Your task to perform on an android device: Is it going to rain tomorrow? Image 0: 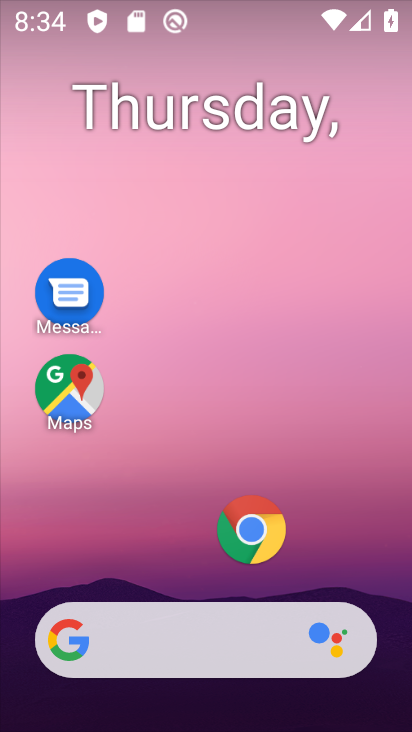
Step 0: click (203, 625)
Your task to perform on an android device: Is it going to rain tomorrow? Image 1: 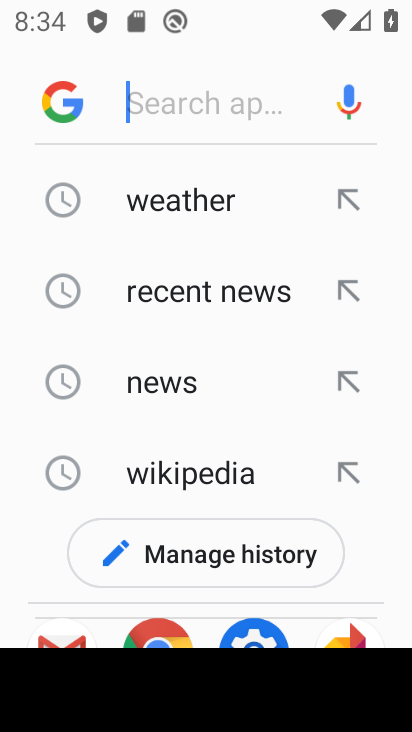
Step 1: click (219, 190)
Your task to perform on an android device: Is it going to rain tomorrow? Image 2: 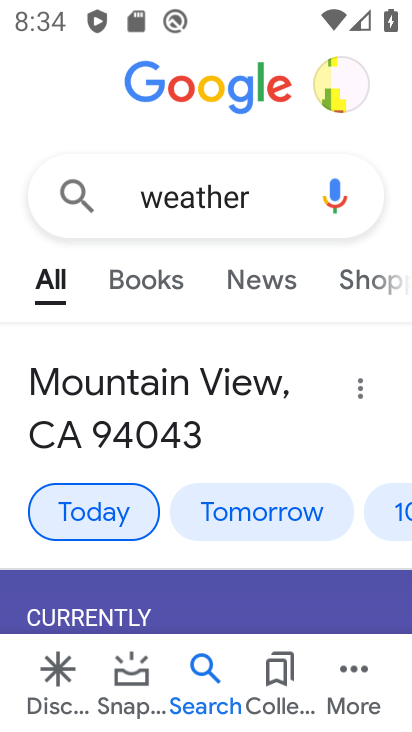
Step 2: click (152, 602)
Your task to perform on an android device: Is it going to rain tomorrow? Image 3: 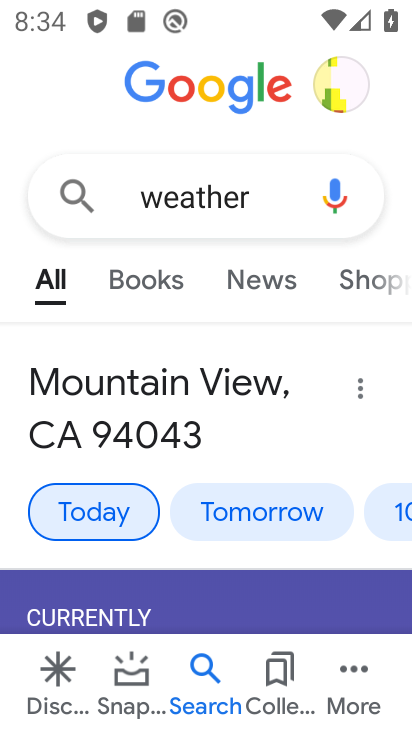
Step 3: drag from (152, 602) to (230, 261)
Your task to perform on an android device: Is it going to rain tomorrow? Image 4: 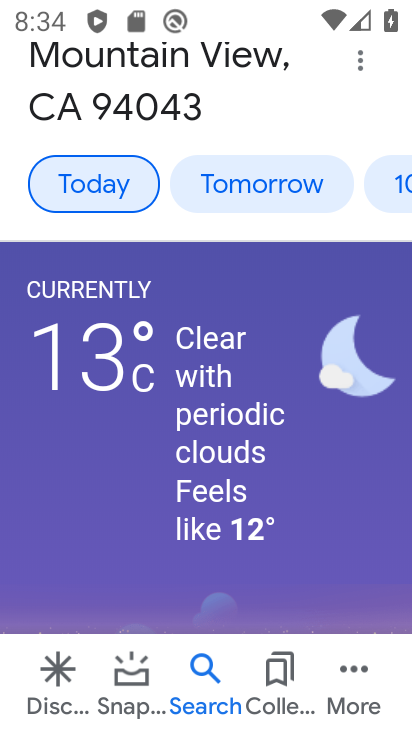
Step 4: drag from (279, 565) to (290, 434)
Your task to perform on an android device: Is it going to rain tomorrow? Image 5: 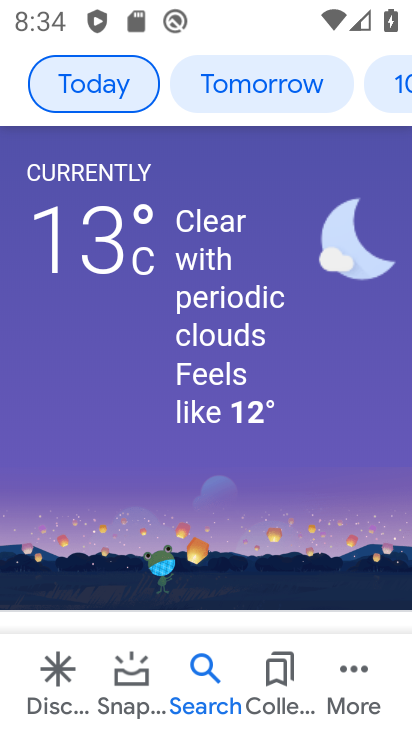
Step 5: drag from (230, 492) to (236, 332)
Your task to perform on an android device: Is it going to rain tomorrow? Image 6: 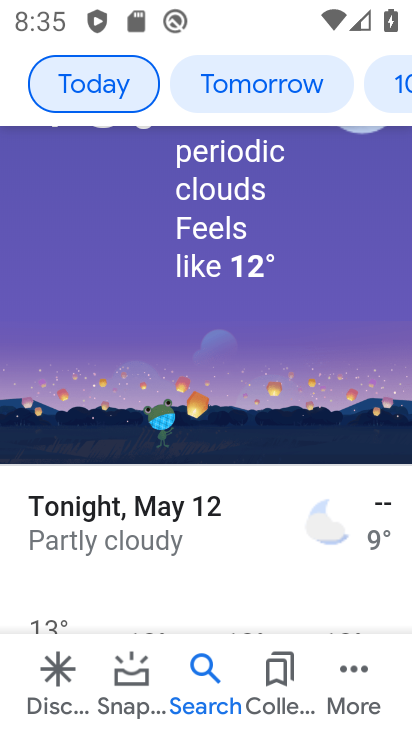
Step 6: drag from (110, 549) to (162, 294)
Your task to perform on an android device: Is it going to rain tomorrow? Image 7: 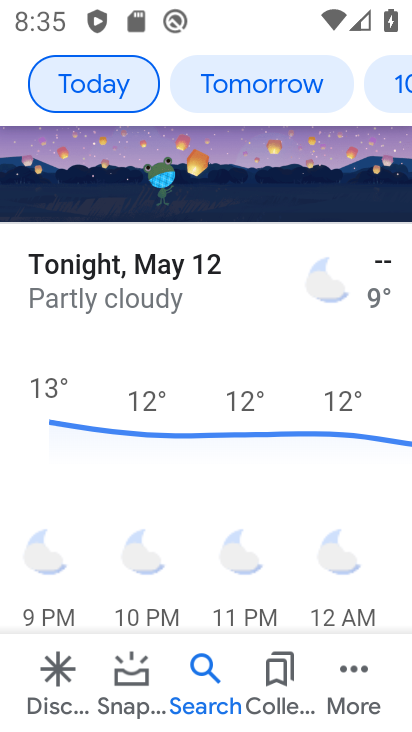
Step 7: drag from (176, 548) to (210, 281)
Your task to perform on an android device: Is it going to rain tomorrow? Image 8: 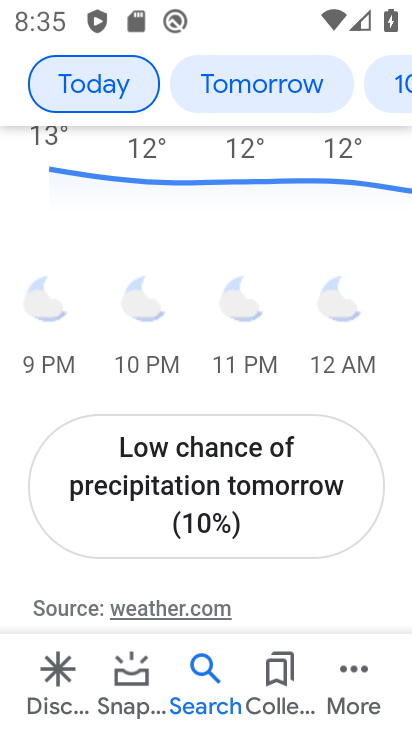
Step 8: drag from (171, 419) to (206, 250)
Your task to perform on an android device: Is it going to rain tomorrow? Image 9: 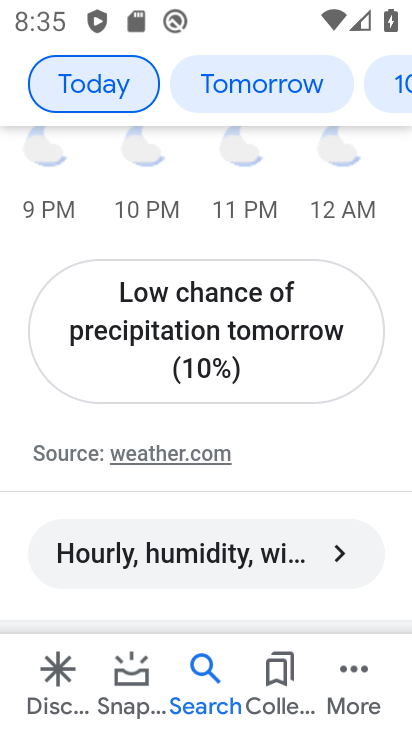
Step 9: click (173, 463)
Your task to perform on an android device: Is it going to rain tomorrow? Image 10: 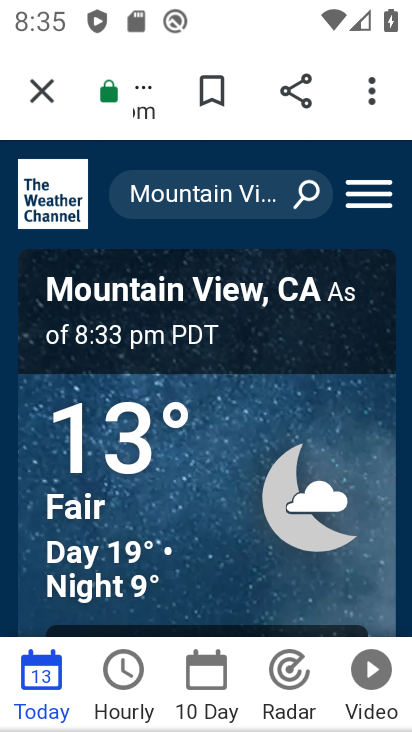
Step 10: drag from (139, 588) to (225, 112)
Your task to perform on an android device: Is it going to rain tomorrow? Image 11: 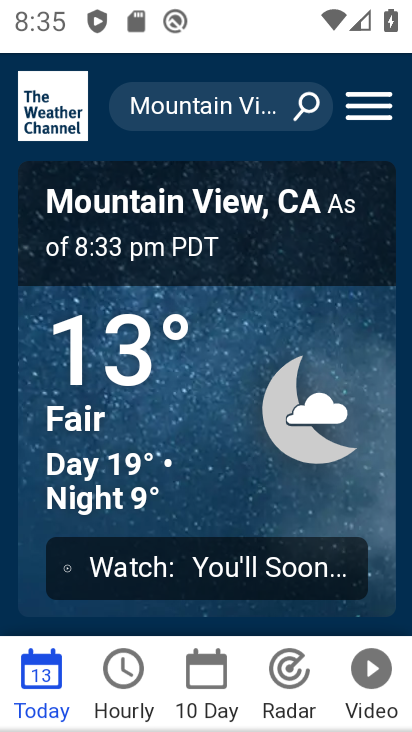
Step 11: drag from (312, 404) to (335, 26)
Your task to perform on an android device: Is it going to rain tomorrow? Image 12: 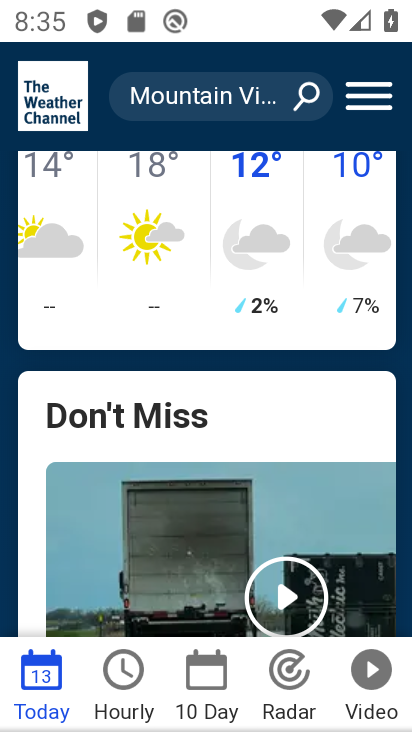
Step 12: drag from (251, 268) to (289, 507)
Your task to perform on an android device: Is it going to rain tomorrow? Image 13: 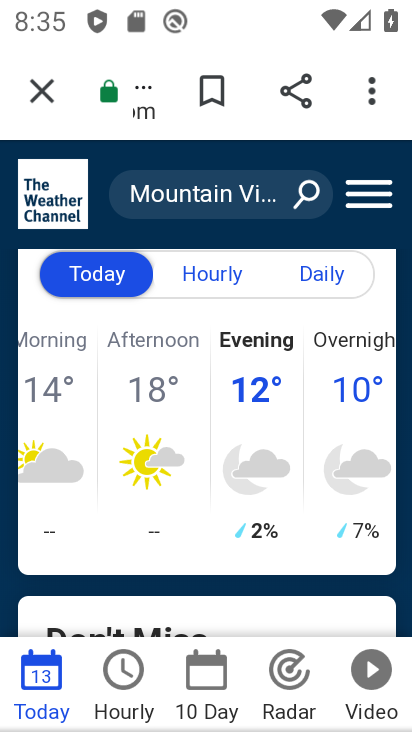
Step 13: click (326, 286)
Your task to perform on an android device: Is it going to rain tomorrow? Image 14: 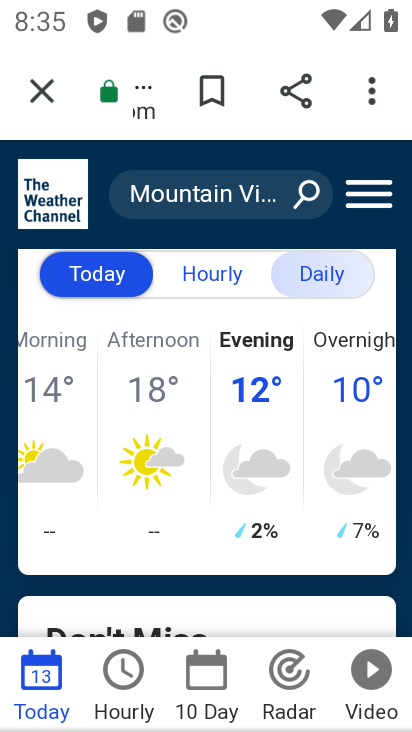
Step 14: click (326, 286)
Your task to perform on an android device: Is it going to rain tomorrow? Image 15: 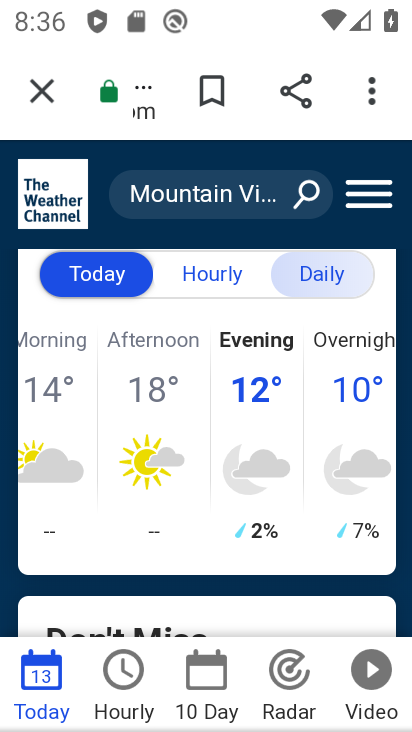
Step 15: click (204, 684)
Your task to perform on an android device: Is it going to rain tomorrow? Image 16: 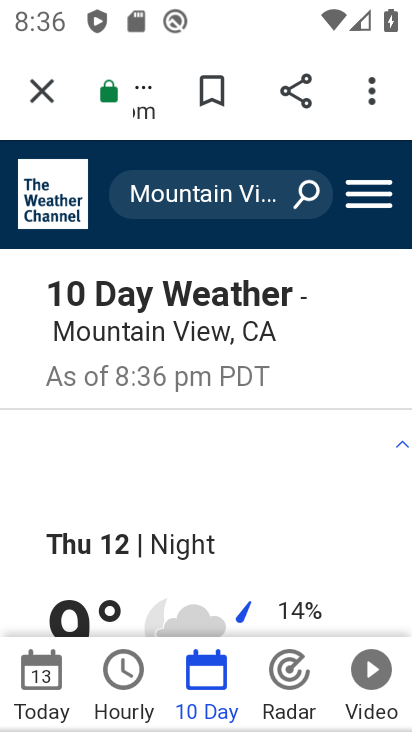
Step 16: drag from (223, 460) to (252, 74)
Your task to perform on an android device: Is it going to rain tomorrow? Image 17: 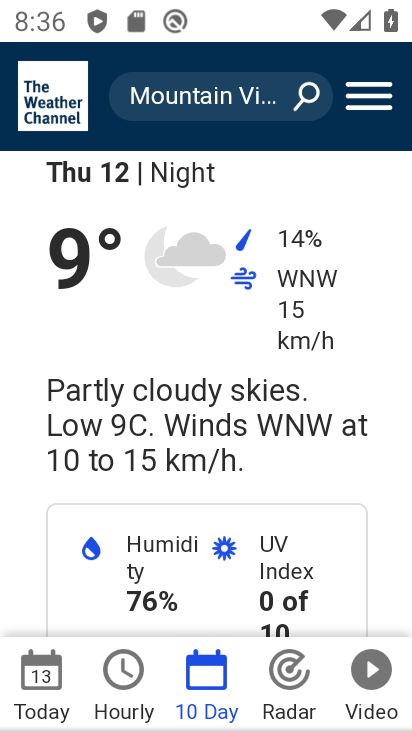
Step 17: drag from (168, 531) to (203, 245)
Your task to perform on an android device: Is it going to rain tomorrow? Image 18: 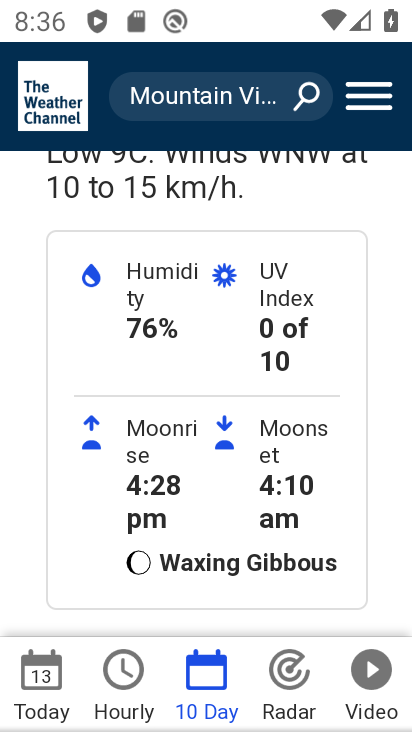
Step 18: drag from (28, 599) to (168, 158)
Your task to perform on an android device: Is it going to rain tomorrow? Image 19: 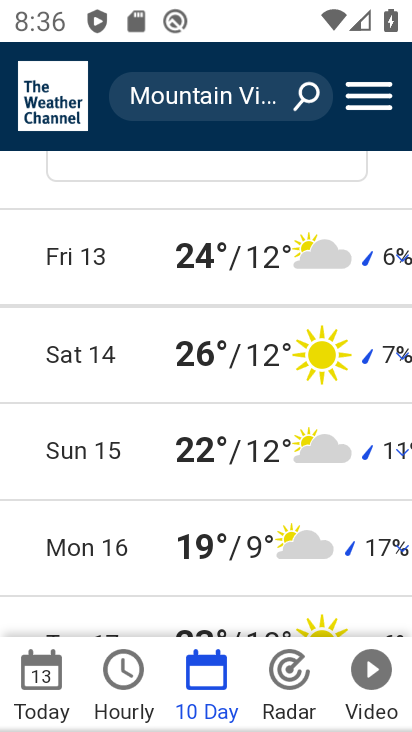
Step 19: click (126, 265)
Your task to perform on an android device: Is it going to rain tomorrow? Image 20: 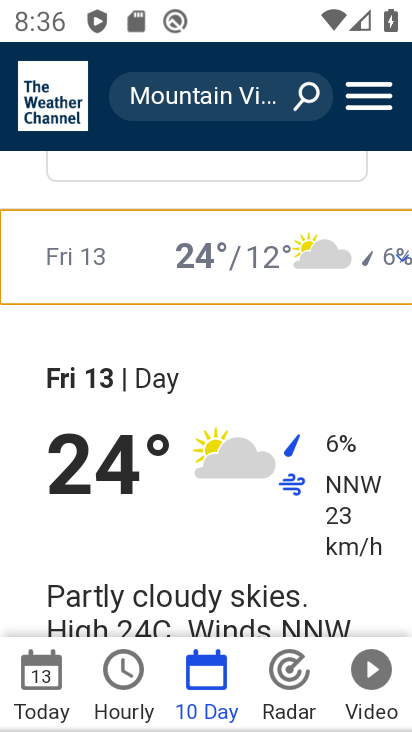
Step 20: task complete